Your task to perform on an android device: What's on my calendar tomorrow? Image 0: 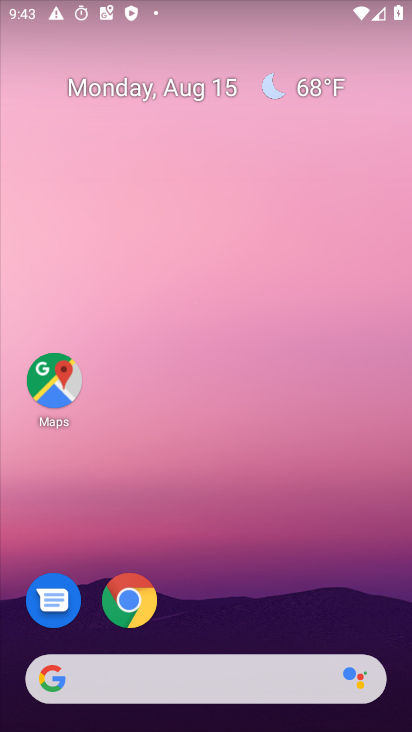
Step 0: drag from (234, 628) to (209, 63)
Your task to perform on an android device: What's on my calendar tomorrow? Image 1: 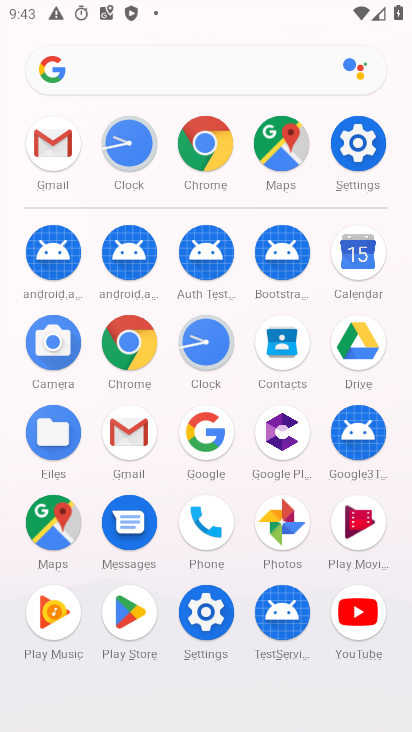
Step 1: click (352, 261)
Your task to perform on an android device: What's on my calendar tomorrow? Image 2: 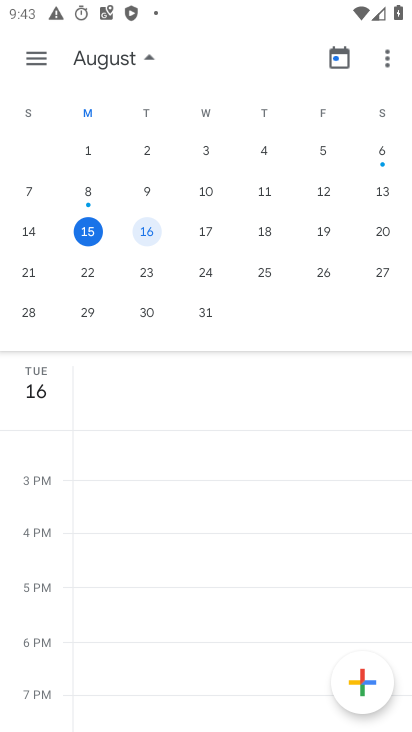
Step 2: click (141, 226)
Your task to perform on an android device: What's on my calendar tomorrow? Image 3: 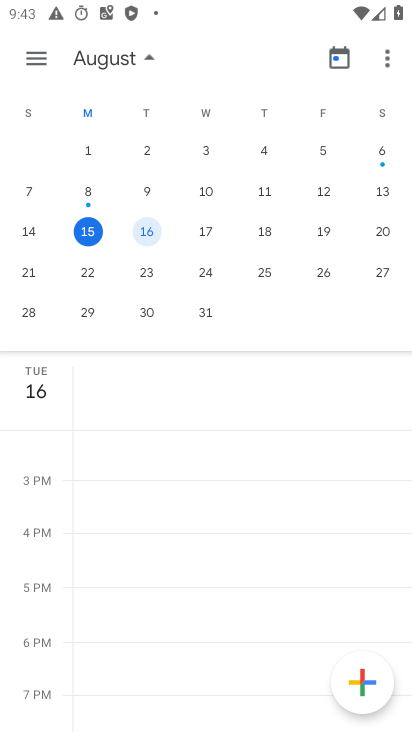
Step 3: click (148, 223)
Your task to perform on an android device: What's on my calendar tomorrow? Image 4: 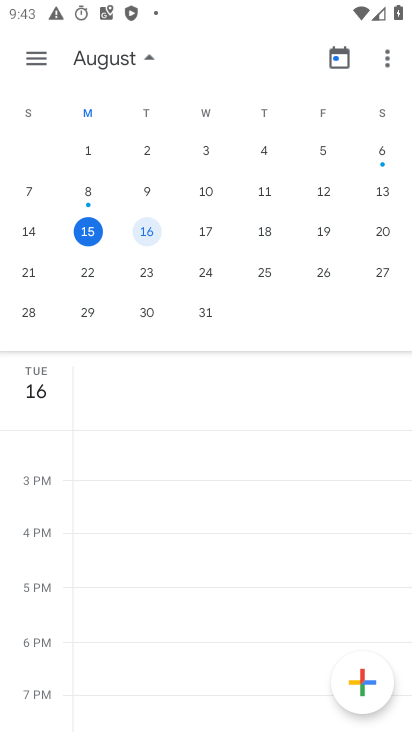
Step 4: click (37, 384)
Your task to perform on an android device: What's on my calendar tomorrow? Image 5: 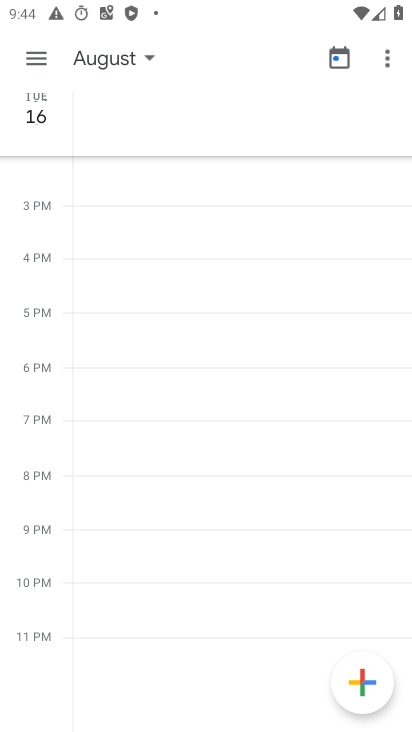
Step 5: task complete